Your task to perform on an android device: Open eBay Image 0: 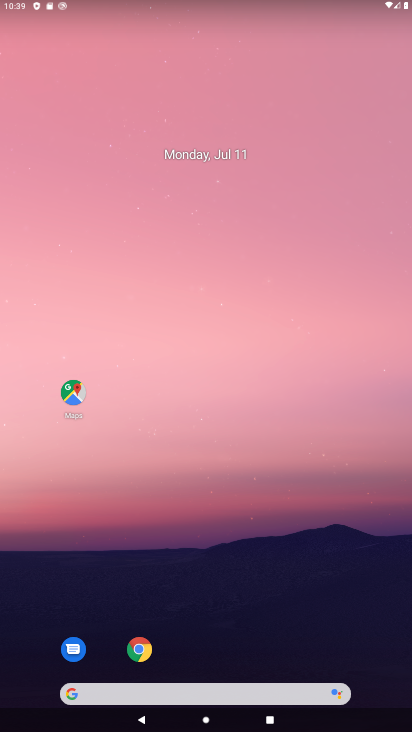
Step 0: click (141, 648)
Your task to perform on an android device: Open eBay Image 1: 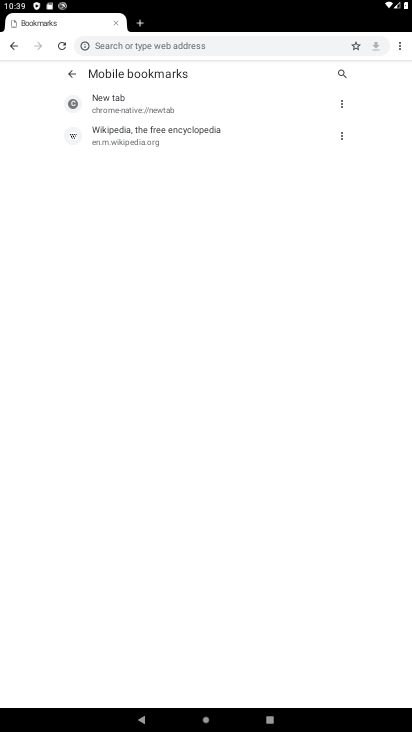
Step 1: click (251, 47)
Your task to perform on an android device: Open eBay Image 2: 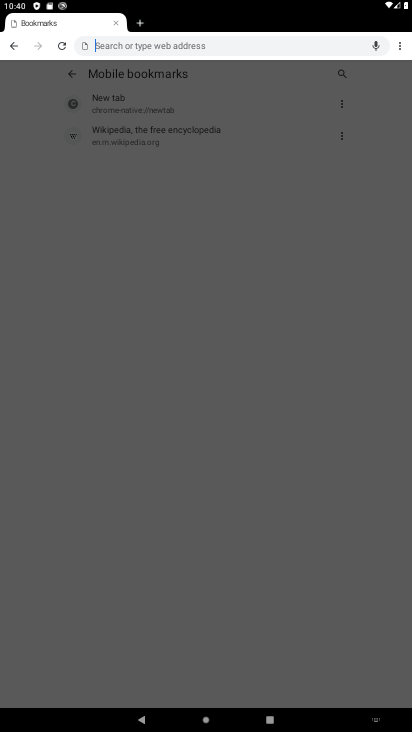
Step 2: type "eBay"
Your task to perform on an android device: Open eBay Image 3: 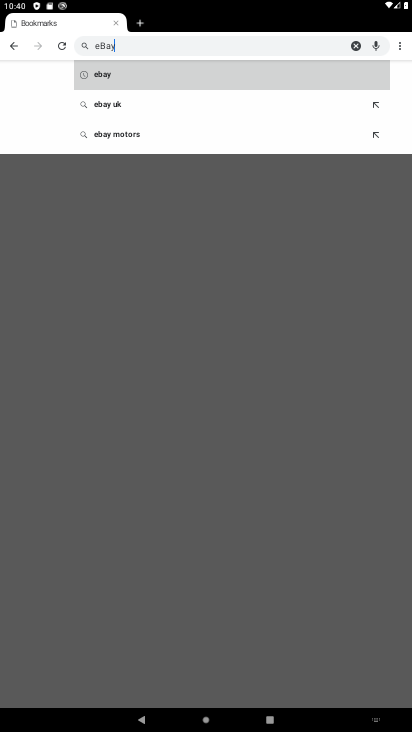
Step 3: click (188, 79)
Your task to perform on an android device: Open eBay Image 4: 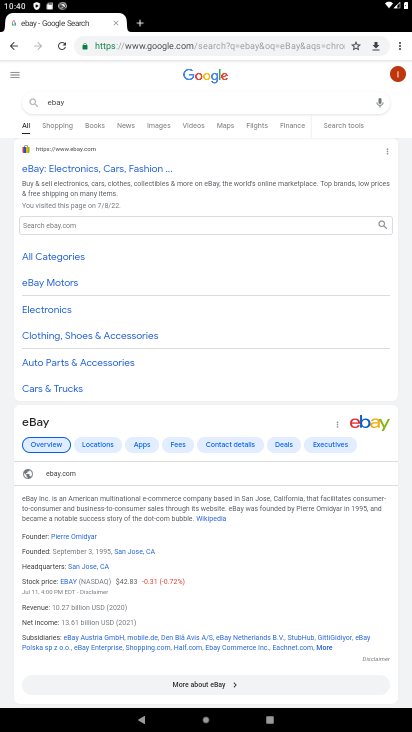
Step 4: click (136, 169)
Your task to perform on an android device: Open eBay Image 5: 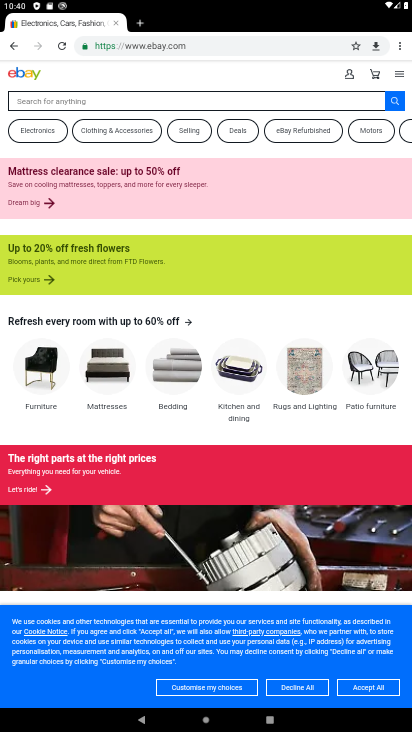
Step 5: task complete